Your task to perform on an android device: What's the weather going to be this weekend? Image 0: 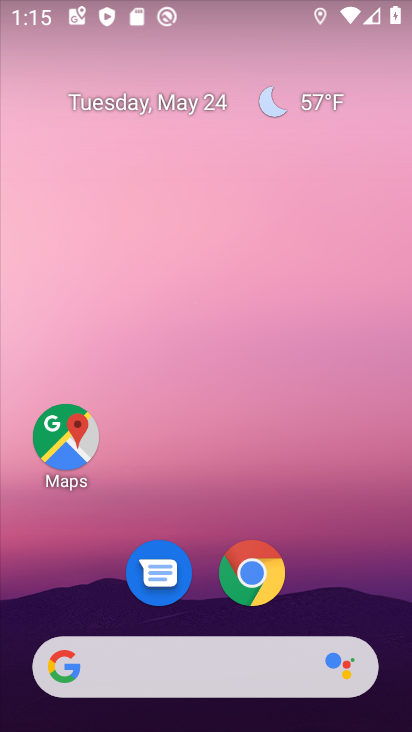
Step 0: drag from (350, 571) to (318, 170)
Your task to perform on an android device: What's the weather going to be this weekend? Image 1: 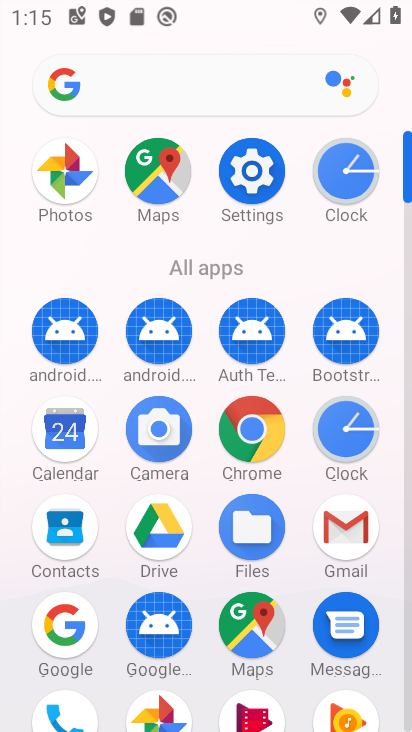
Step 1: click (249, 436)
Your task to perform on an android device: What's the weather going to be this weekend? Image 2: 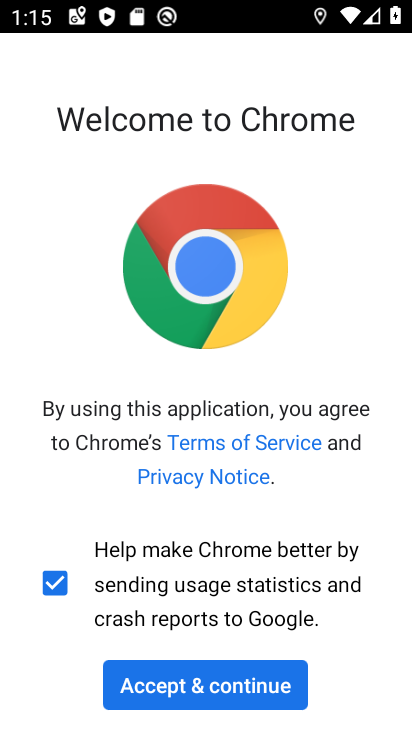
Step 2: click (207, 691)
Your task to perform on an android device: What's the weather going to be this weekend? Image 3: 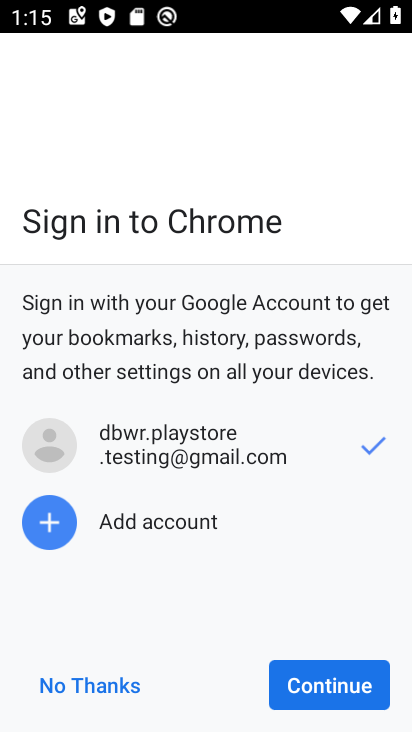
Step 3: click (330, 684)
Your task to perform on an android device: What's the weather going to be this weekend? Image 4: 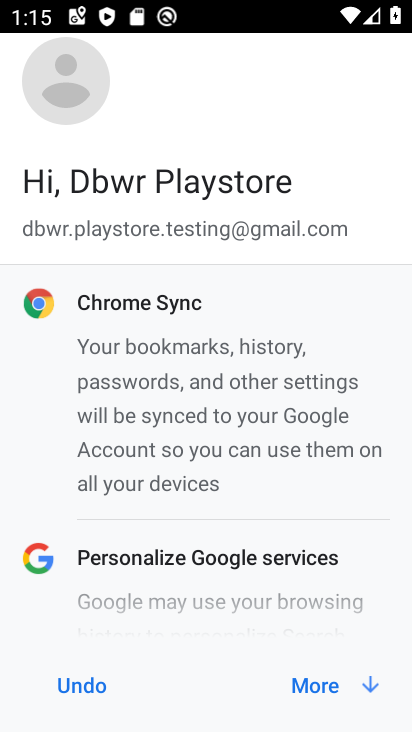
Step 4: click (338, 683)
Your task to perform on an android device: What's the weather going to be this weekend? Image 5: 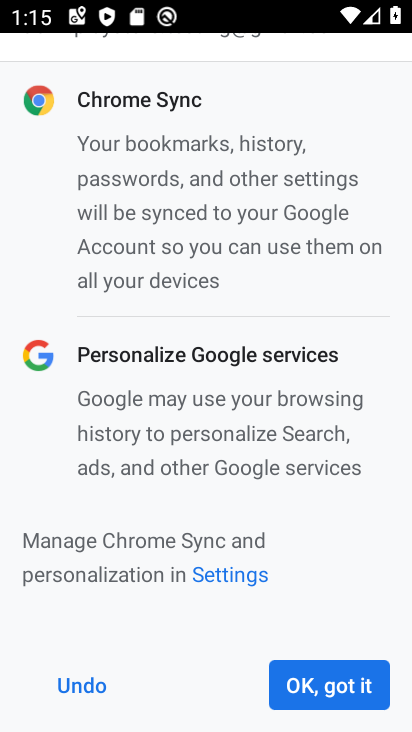
Step 5: click (343, 680)
Your task to perform on an android device: What's the weather going to be this weekend? Image 6: 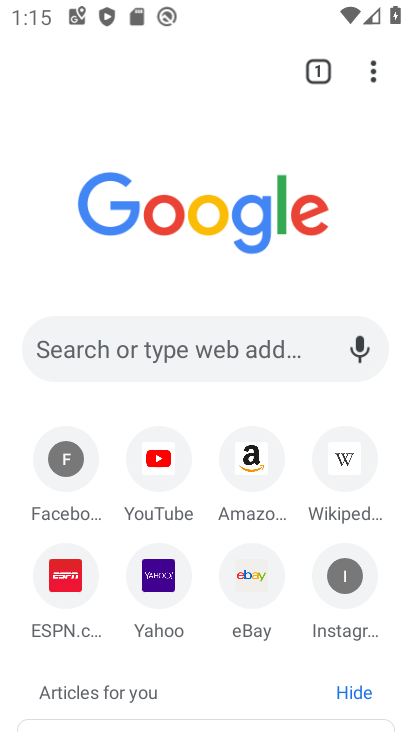
Step 6: click (203, 344)
Your task to perform on an android device: What's the weather going to be this weekend? Image 7: 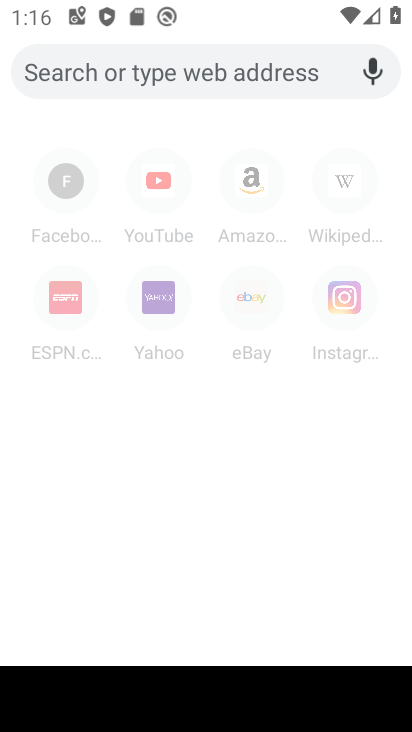
Step 7: type "what's the weather going to be this weekend "
Your task to perform on an android device: What's the weather going to be this weekend? Image 8: 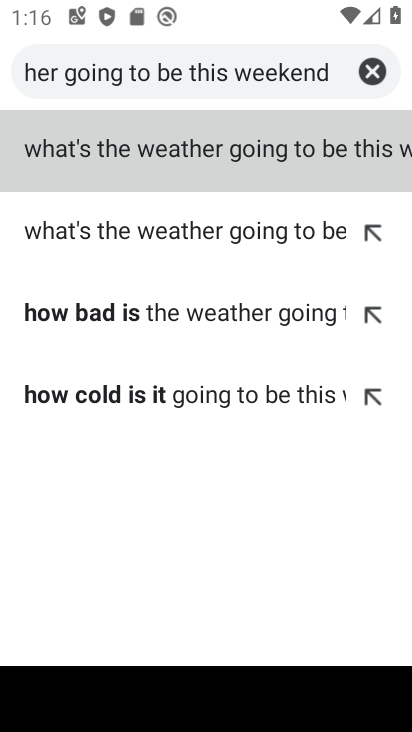
Step 8: click (260, 73)
Your task to perform on an android device: What's the weather going to be this weekend? Image 9: 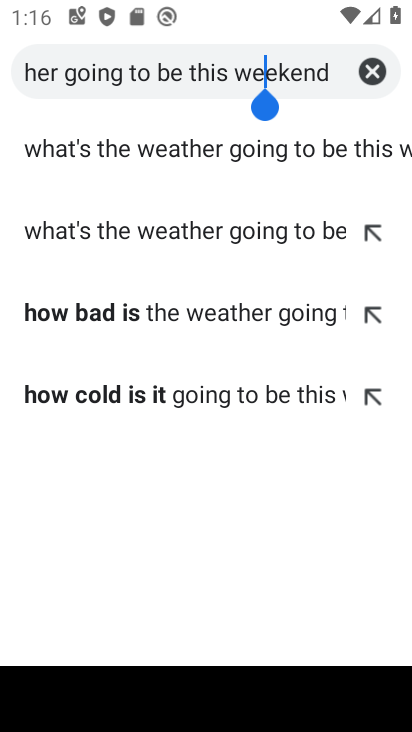
Step 9: click (247, 149)
Your task to perform on an android device: What's the weather going to be this weekend? Image 10: 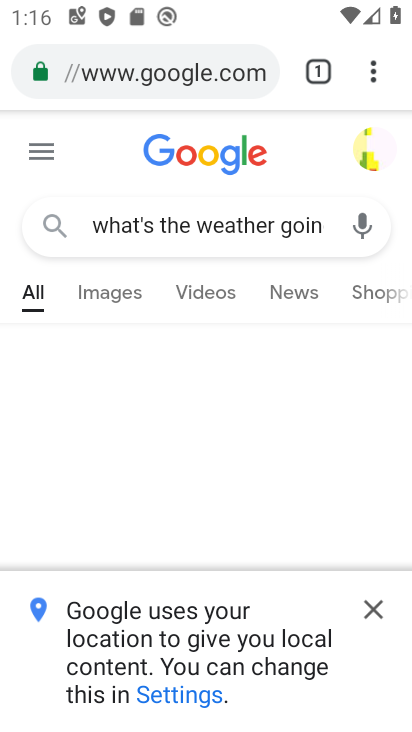
Step 10: click (368, 618)
Your task to perform on an android device: What's the weather going to be this weekend? Image 11: 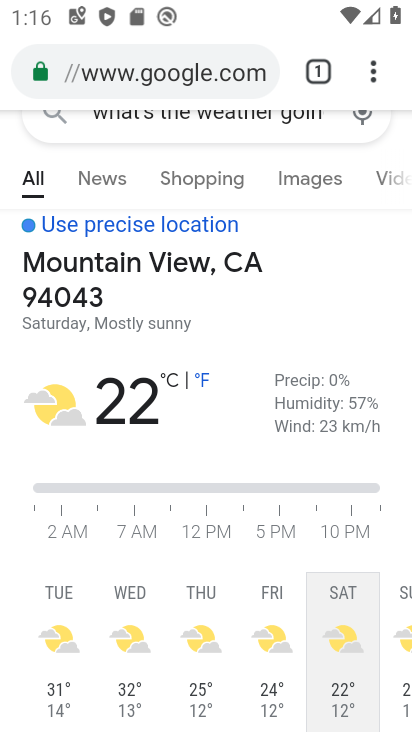
Step 11: task complete